Your task to perform on an android device: install app "Calculator" Image 0: 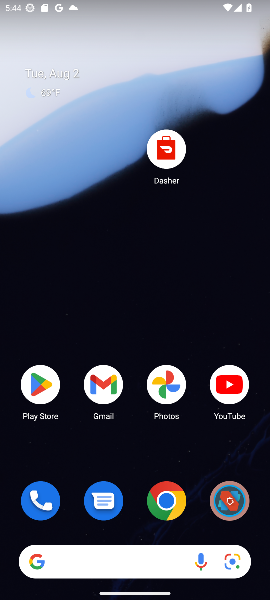
Step 0: click (28, 386)
Your task to perform on an android device: install app "Calculator" Image 1: 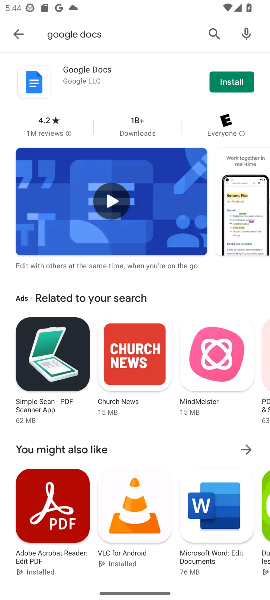
Step 1: click (209, 30)
Your task to perform on an android device: install app "Calculator" Image 2: 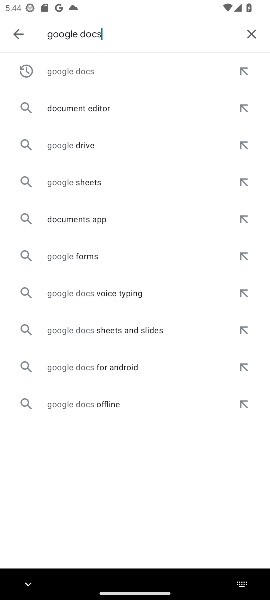
Step 2: click (246, 36)
Your task to perform on an android device: install app "Calculator" Image 3: 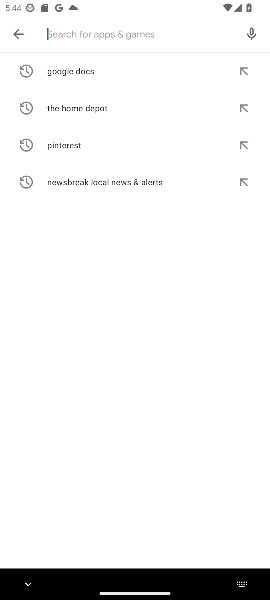
Step 3: type "Calculator"
Your task to perform on an android device: install app "Calculator" Image 4: 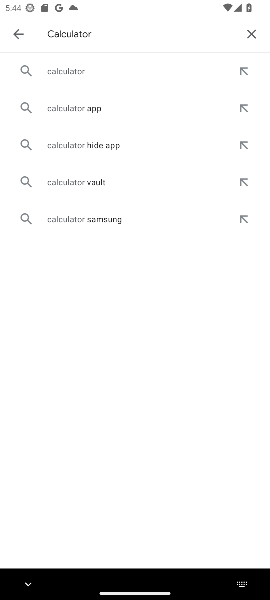
Step 4: click (73, 72)
Your task to perform on an android device: install app "Calculator" Image 5: 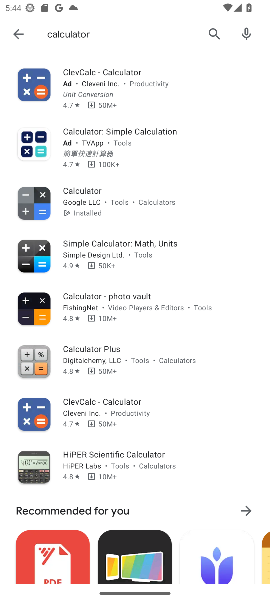
Step 5: click (54, 208)
Your task to perform on an android device: install app "Calculator" Image 6: 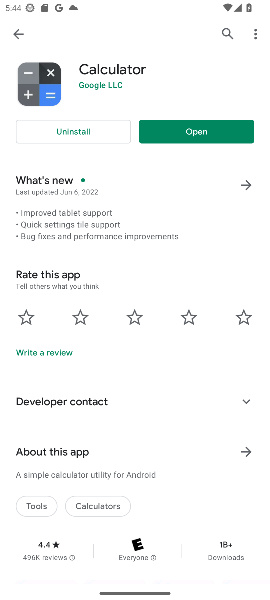
Step 6: task complete